Your task to perform on an android device: Open settings Image 0: 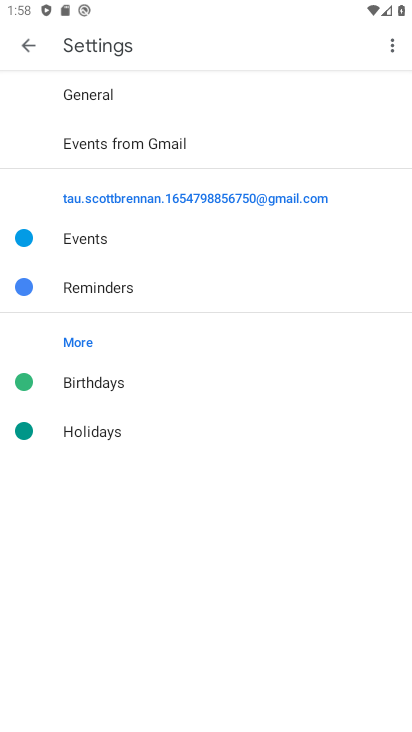
Step 0: click (393, 414)
Your task to perform on an android device: Open settings Image 1: 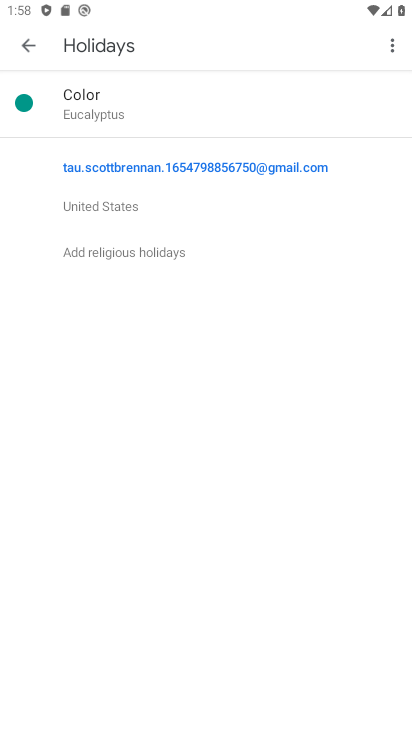
Step 1: press home button
Your task to perform on an android device: Open settings Image 2: 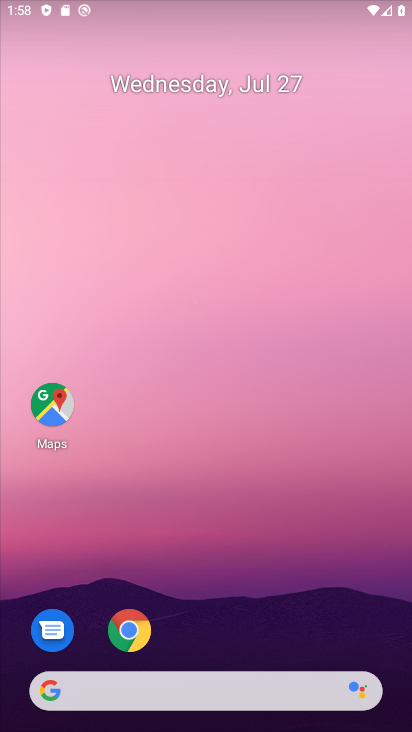
Step 2: drag from (344, 153) to (198, 52)
Your task to perform on an android device: Open settings Image 3: 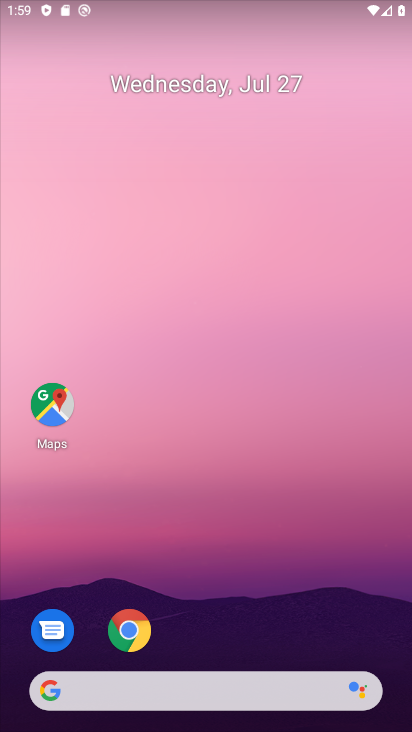
Step 3: drag from (231, 551) to (342, 46)
Your task to perform on an android device: Open settings Image 4: 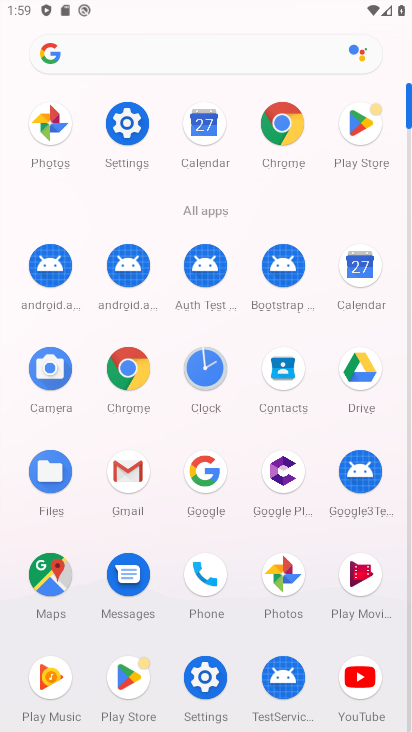
Step 4: drag from (369, 528) to (257, 88)
Your task to perform on an android device: Open settings Image 5: 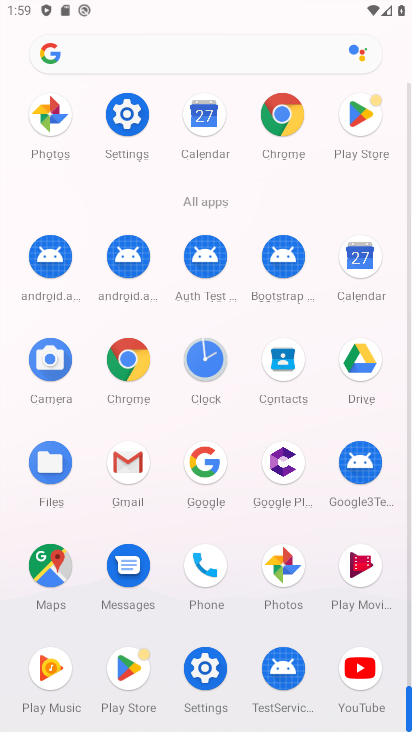
Step 5: click (215, 653)
Your task to perform on an android device: Open settings Image 6: 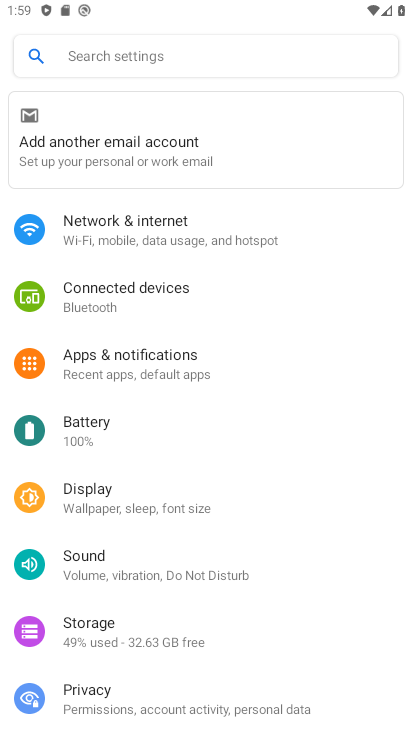
Step 6: task complete